Your task to perform on an android device: turn on translation in the chrome app Image 0: 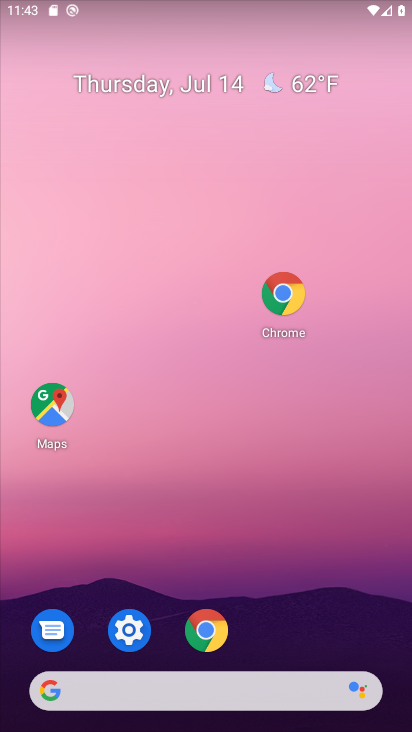
Step 0: drag from (258, 190) to (242, 127)
Your task to perform on an android device: turn on translation in the chrome app Image 1: 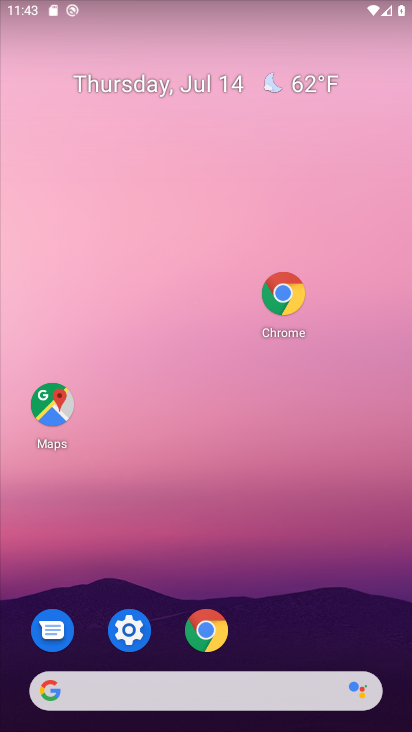
Step 1: drag from (280, 644) to (259, 76)
Your task to perform on an android device: turn on translation in the chrome app Image 2: 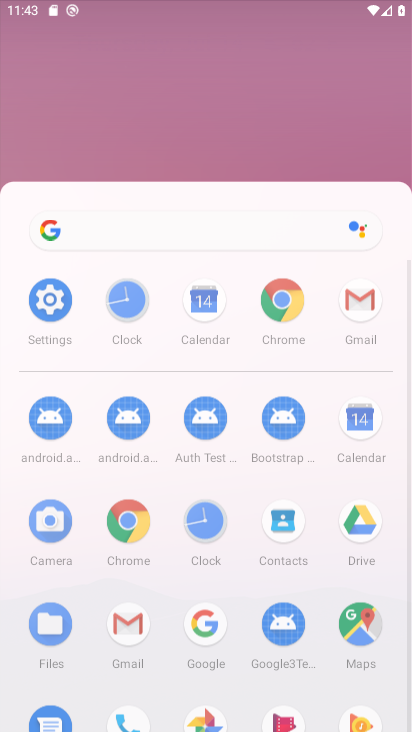
Step 2: drag from (252, 592) to (284, 248)
Your task to perform on an android device: turn on translation in the chrome app Image 3: 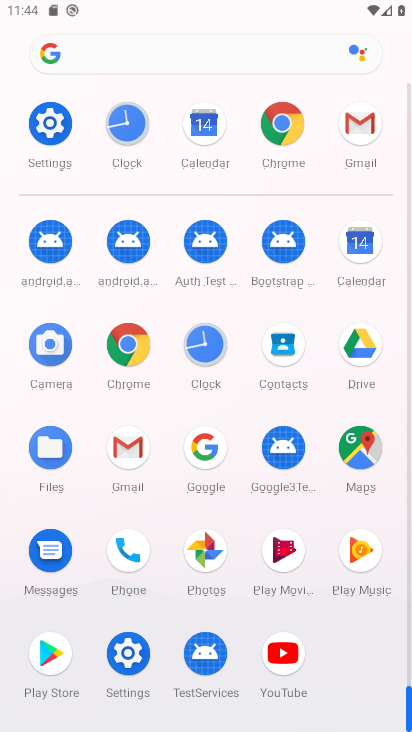
Step 3: click (285, 142)
Your task to perform on an android device: turn on translation in the chrome app Image 4: 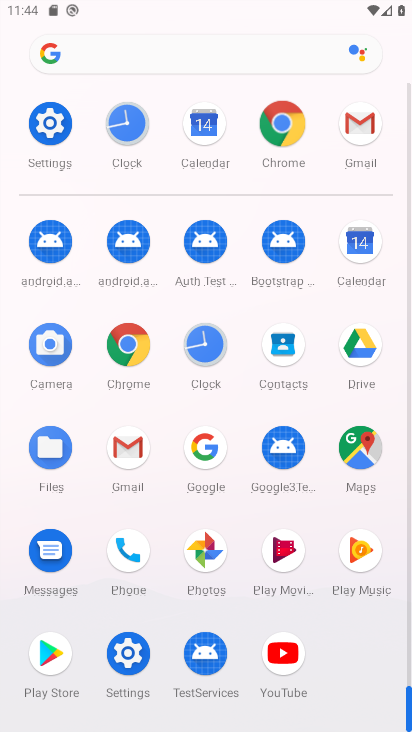
Step 4: click (285, 141)
Your task to perform on an android device: turn on translation in the chrome app Image 5: 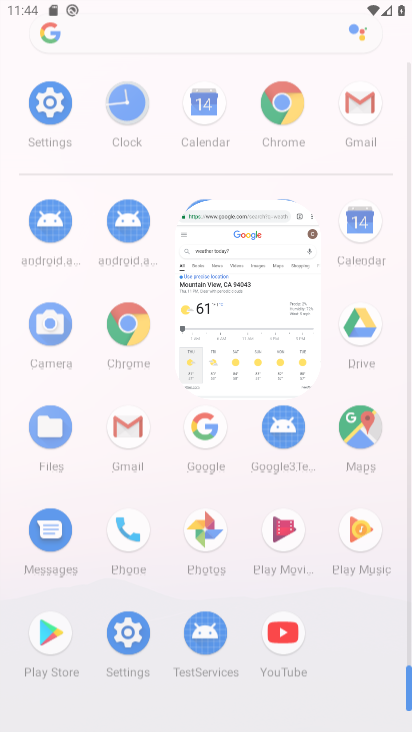
Step 5: click (285, 141)
Your task to perform on an android device: turn on translation in the chrome app Image 6: 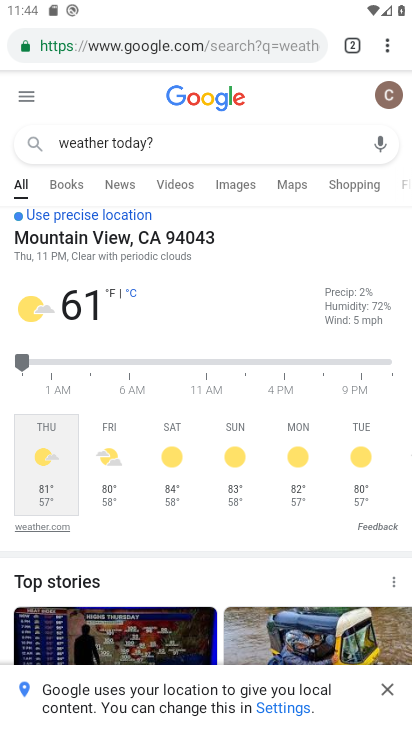
Step 6: drag from (383, 49) to (210, 564)
Your task to perform on an android device: turn on translation in the chrome app Image 7: 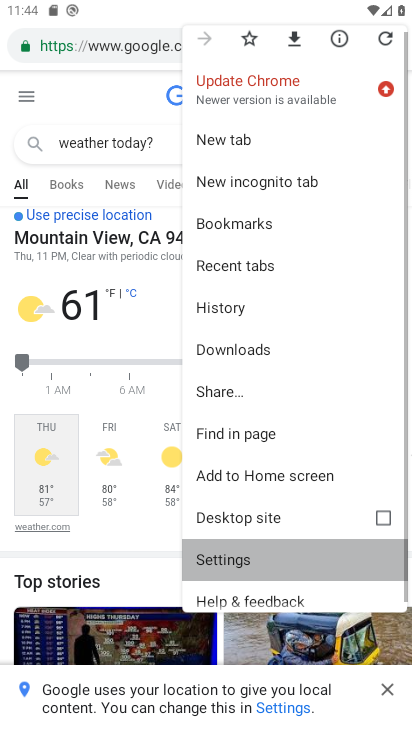
Step 7: click (211, 564)
Your task to perform on an android device: turn on translation in the chrome app Image 8: 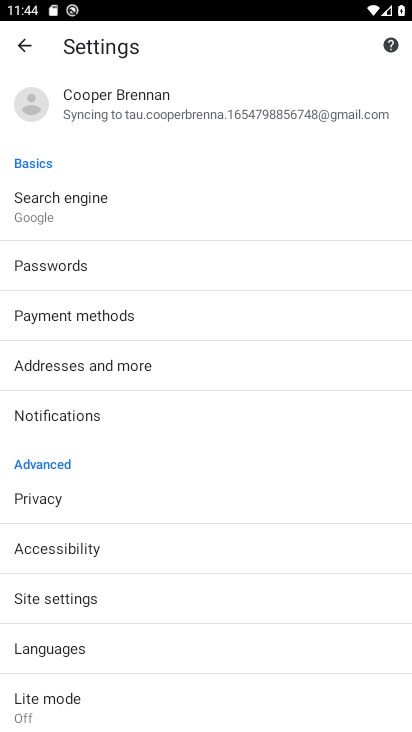
Step 8: drag from (84, 654) to (96, 400)
Your task to perform on an android device: turn on translation in the chrome app Image 9: 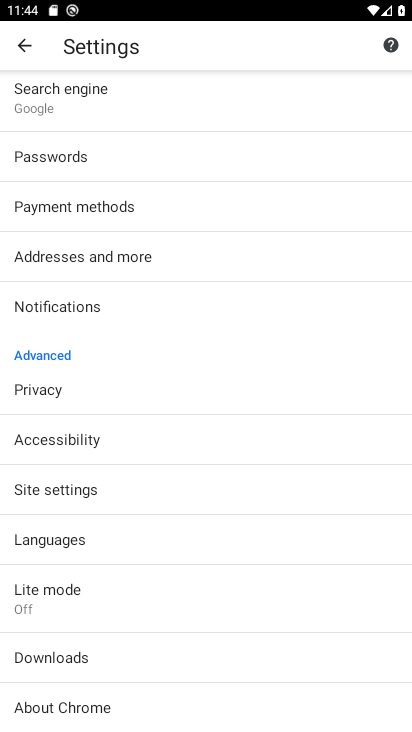
Step 9: drag from (171, 628) to (157, 208)
Your task to perform on an android device: turn on translation in the chrome app Image 10: 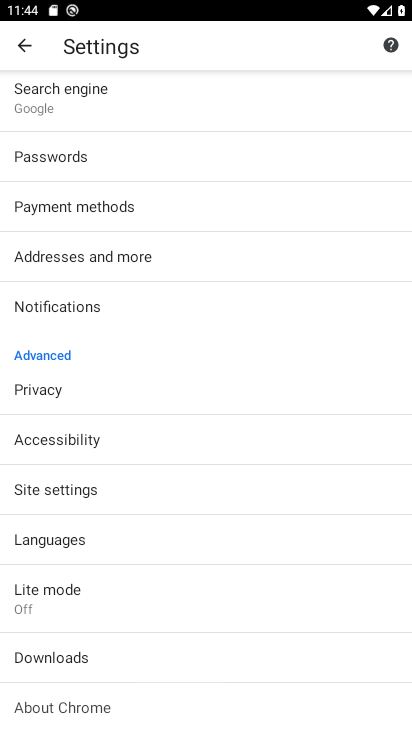
Step 10: drag from (160, 546) to (153, 366)
Your task to perform on an android device: turn on translation in the chrome app Image 11: 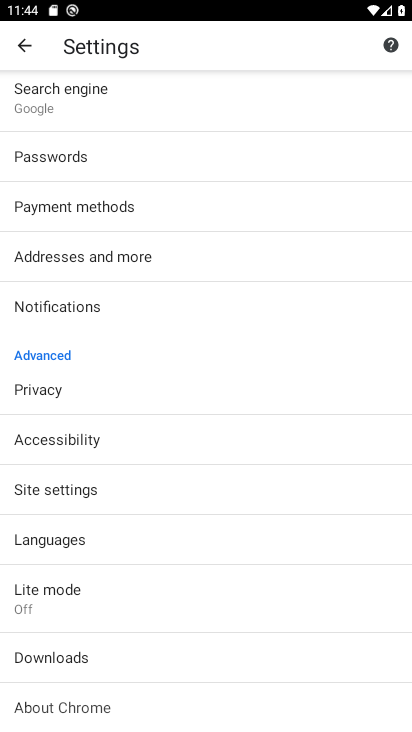
Step 11: drag from (162, 612) to (177, 414)
Your task to perform on an android device: turn on translation in the chrome app Image 12: 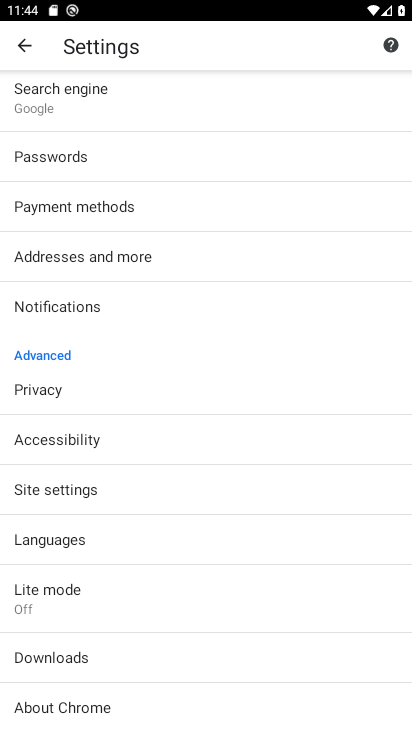
Step 12: drag from (182, 535) to (141, 296)
Your task to perform on an android device: turn on translation in the chrome app Image 13: 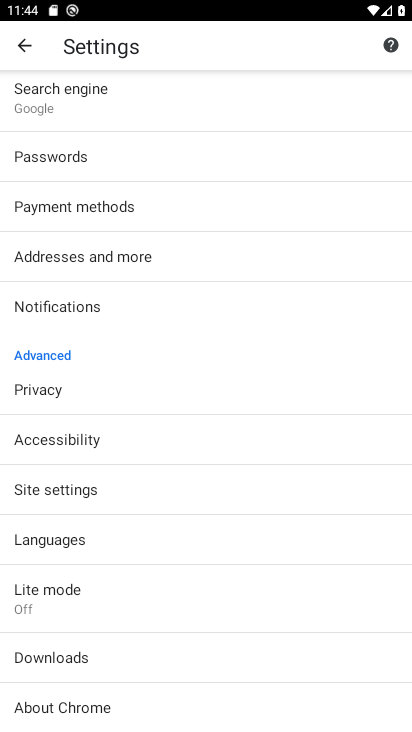
Step 13: click (70, 537)
Your task to perform on an android device: turn on translation in the chrome app Image 14: 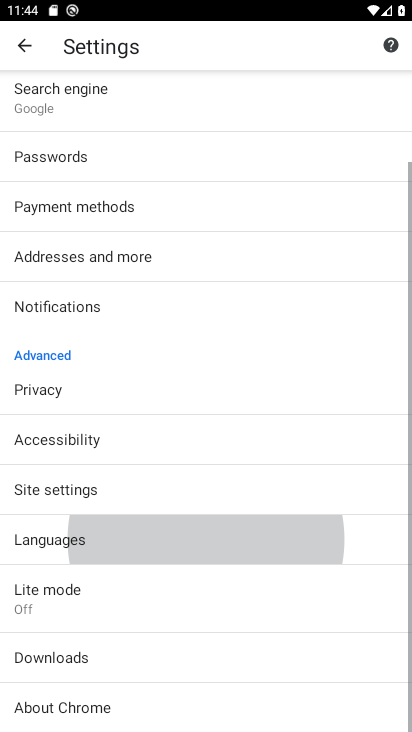
Step 14: click (74, 539)
Your task to perform on an android device: turn on translation in the chrome app Image 15: 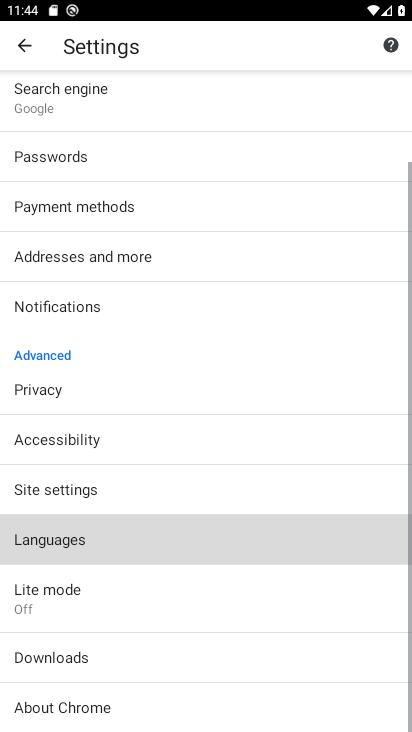
Step 15: click (75, 538)
Your task to perform on an android device: turn on translation in the chrome app Image 16: 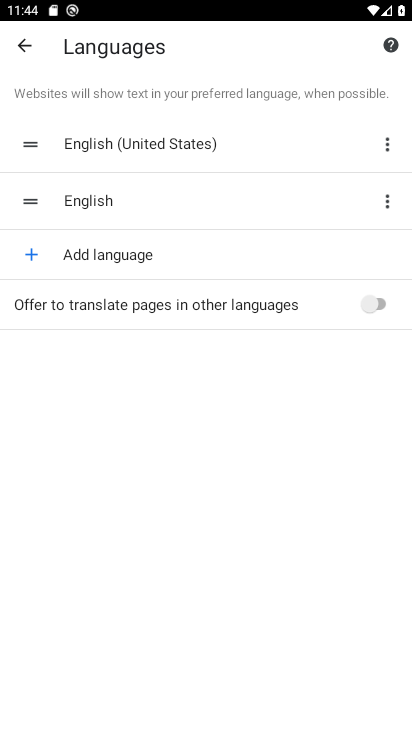
Step 16: click (383, 300)
Your task to perform on an android device: turn on translation in the chrome app Image 17: 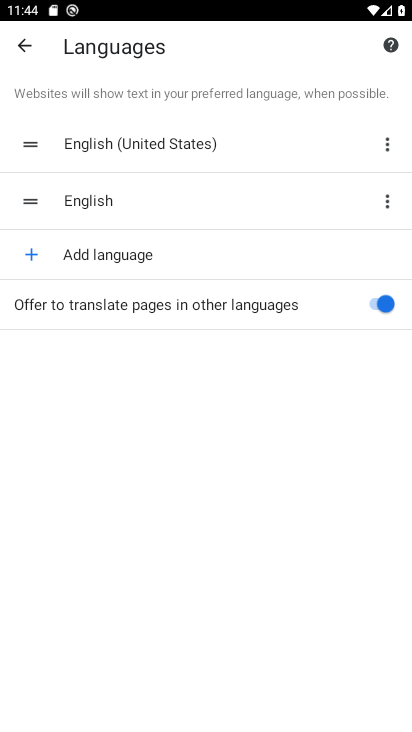
Step 17: task complete